Your task to perform on an android device: Search for Italian restaurants on Maps Image 0: 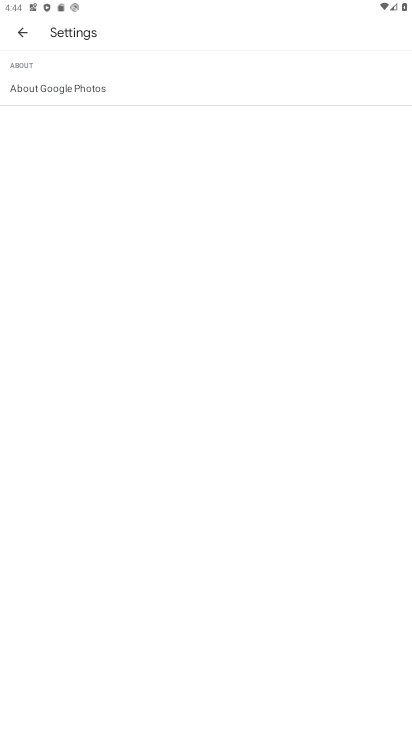
Step 0: press home button
Your task to perform on an android device: Search for Italian restaurants on Maps Image 1: 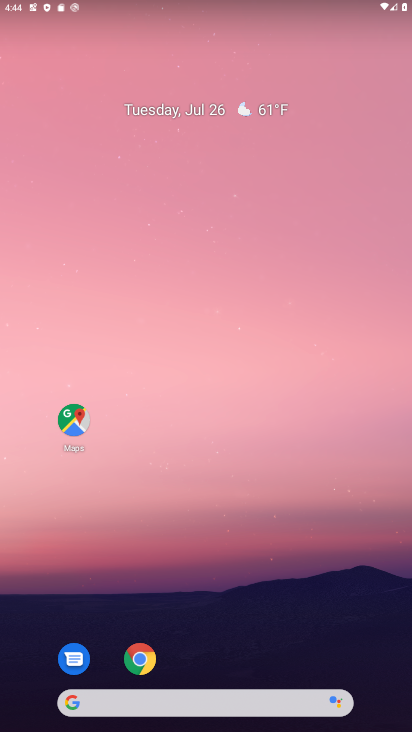
Step 1: click (181, 704)
Your task to perform on an android device: Search for Italian restaurants on Maps Image 2: 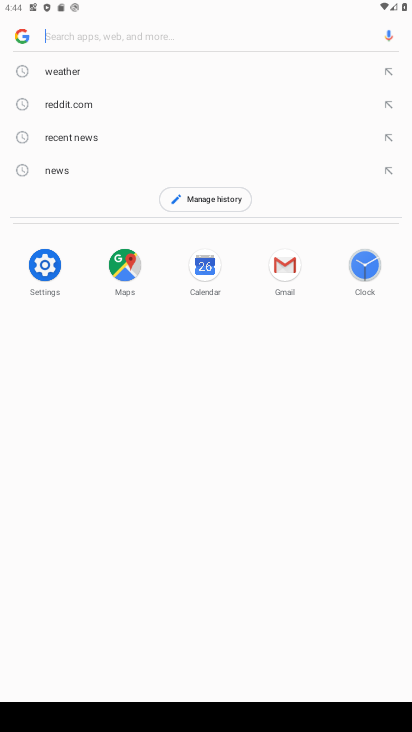
Step 2: type "Italian restaurants "
Your task to perform on an android device: Search for Italian restaurants on Maps Image 3: 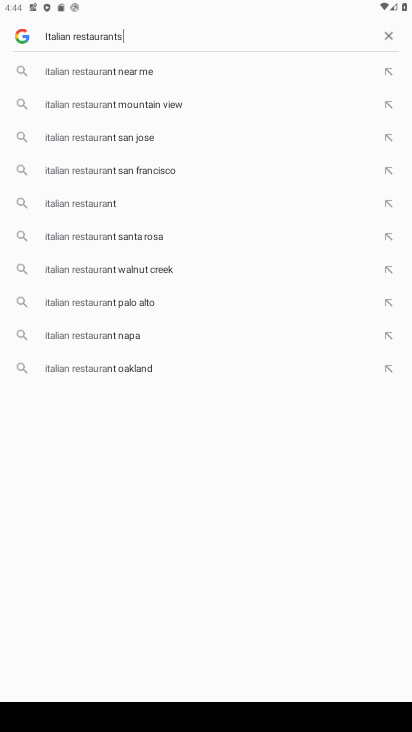
Step 3: press enter
Your task to perform on an android device: Search for Italian restaurants on Maps Image 4: 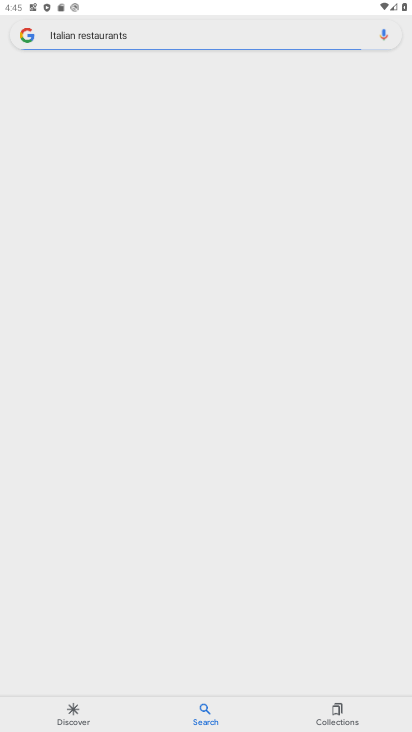
Step 4: task complete